Your task to perform on an android device: turn off airplane mode Image 0: 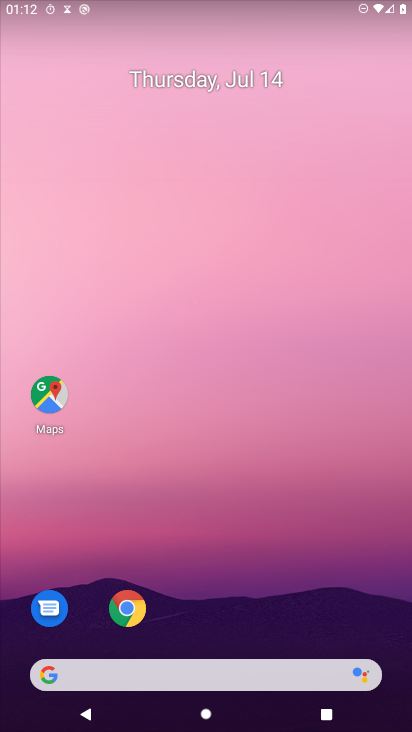
Step 0: press home button
Your task to perform on an android device: turn off airplane mode Image 1: 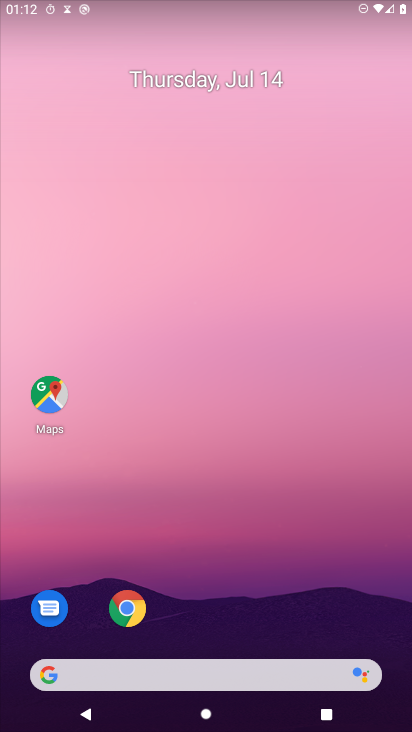
Step 1: task complete